Your task to perform on an android device: change timer sound Image 0: 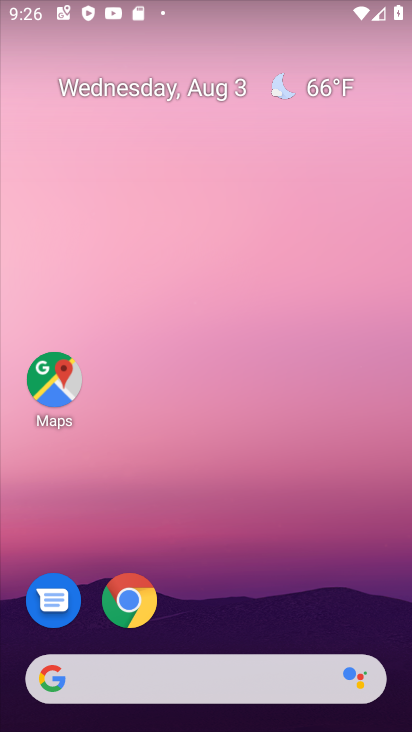
Step 0: drag from (215, 630) to (215, 6)
Your task to perform on an android device: change timer sound Image 1: 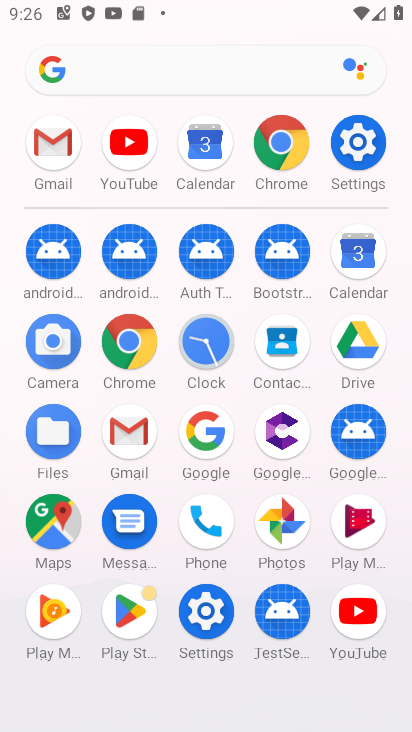
Step 1: click (215, 350)
Your task to perform on an android device: change timer sound Image 2: 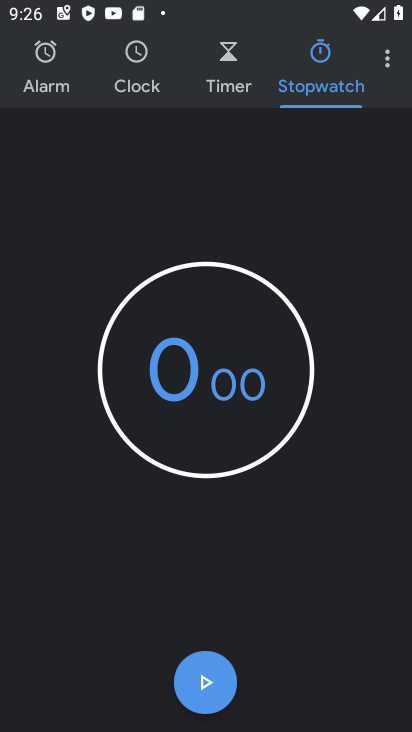
Step 2: click (381, 59)
Your task to perform on an android device: change timer sound Image 3: 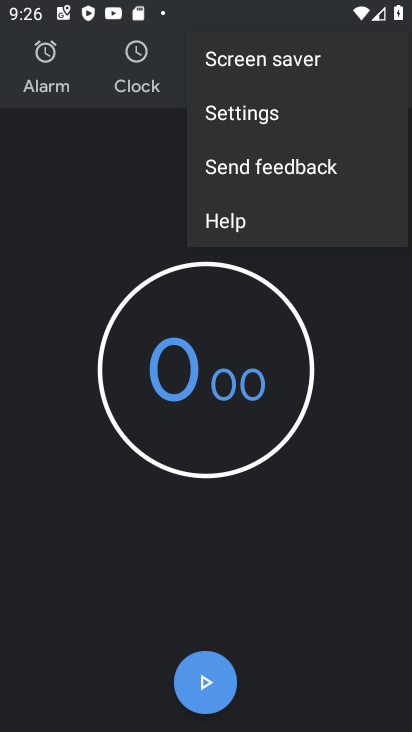
Step 3: click (250, 114)
Your task to perform on an android device: change timer sound Image 4: 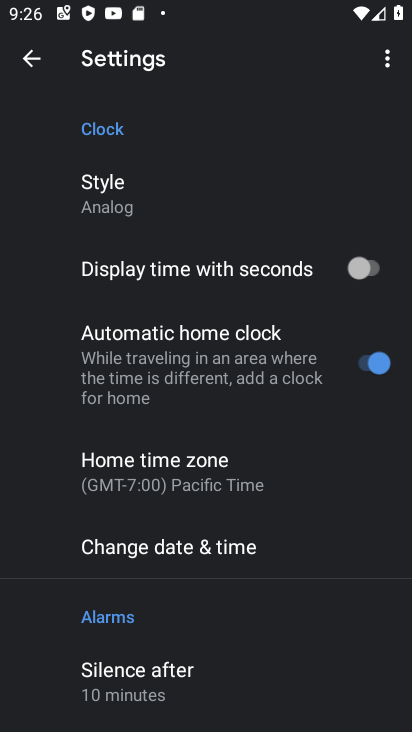
Step 4: drag from (189, 638) to (217, 246)
Your task to perform on an android device: change timer sound Image 5: 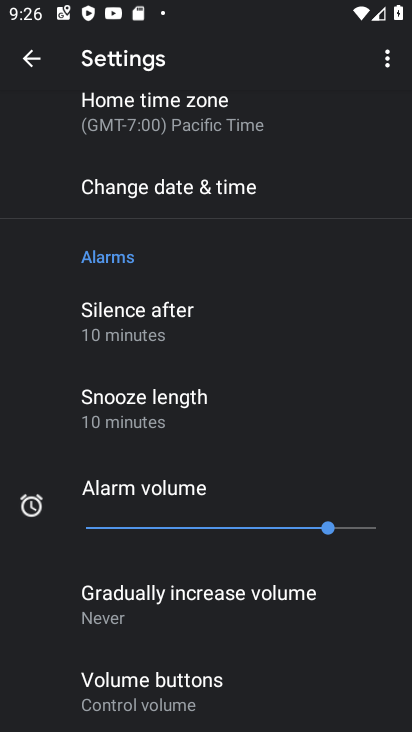
Step 5: drag from (174, 594) to (205, 359)
Your task to perform on an android device: change timer sound Image 6: 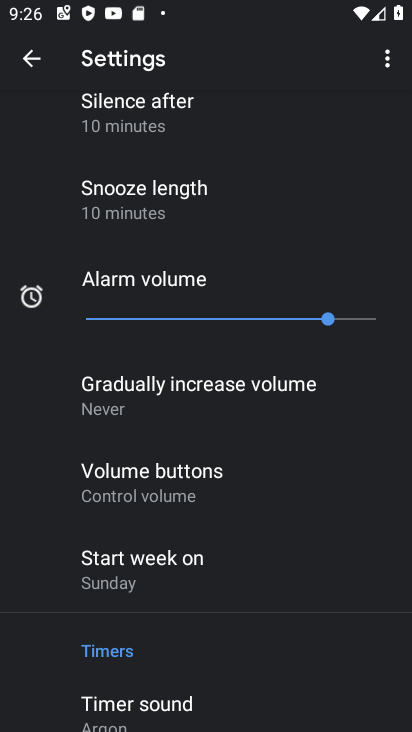
Step 6: drag from (155, 669) to (156, 544)
Your task to perform on an android device: change timer sound Image 7: 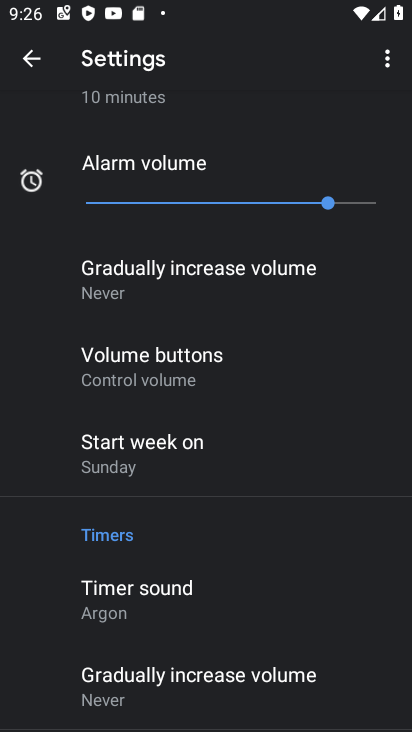
Step 7: click (125, 601)
Your task to perform on an android device: change timer sound Image 8: 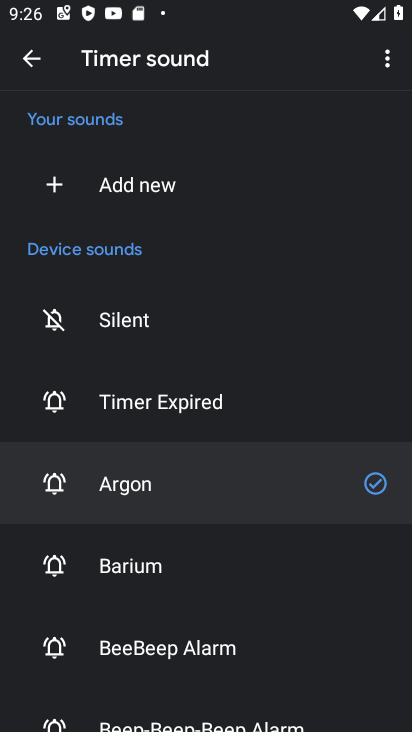
Step 8: click (127, 396)
Your task to perform on an android device: change timer sound Image 9: 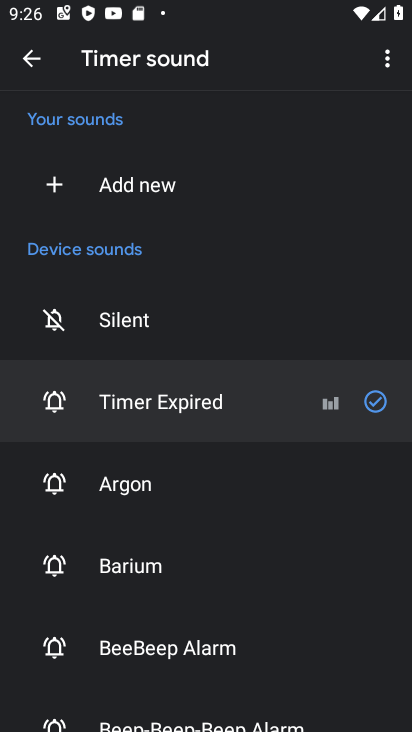
Step 9: task complete